Your task to perform on an android device: open sync settings in chrome Image 0: 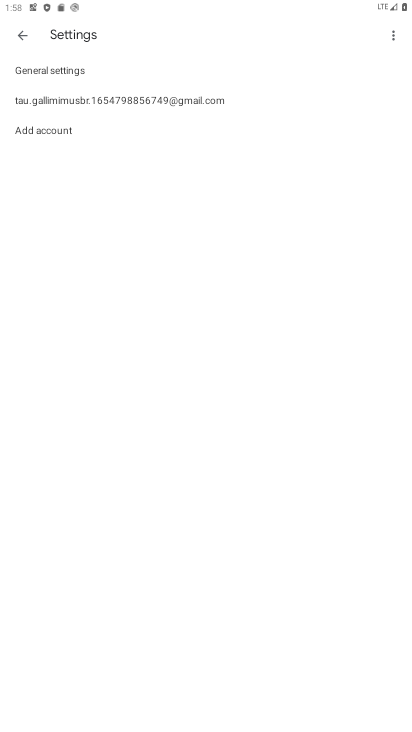
Step 0: press home button
Your task to perform on an android device: open sync settings in chrome Image 1: 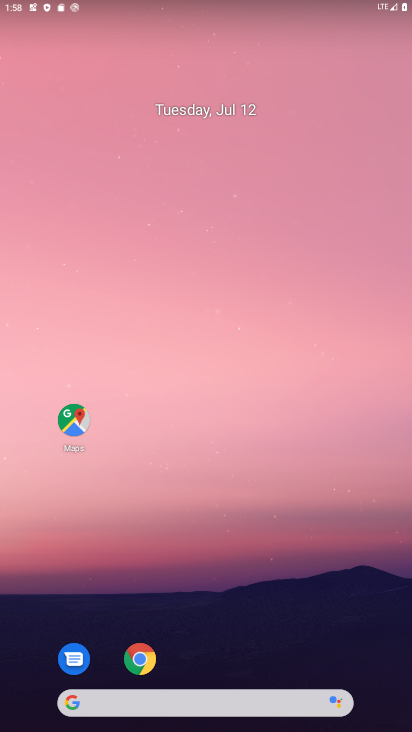
Step 1: drag from (219, 725) to (203, 261)
Your task to perform on an android device: open sync settings in chrome Image 2: 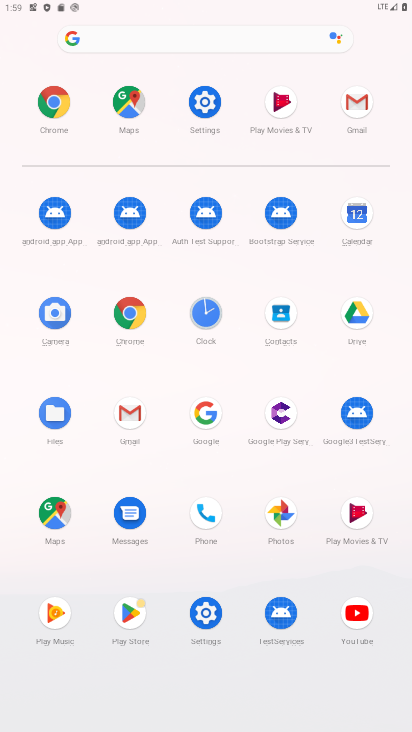
Step 2: click (129, 317)
Your task to perform on an android device: open sync settings in chrome Image 3: 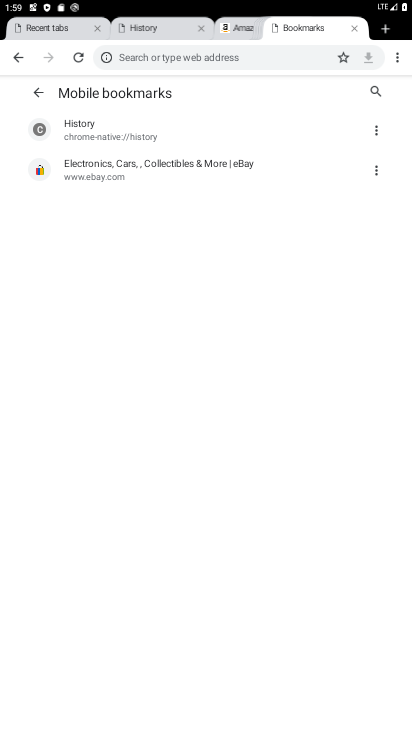
Step 3: click (397, 60)
Your task to perform on an android device: open sync settings in chrome Image 4: 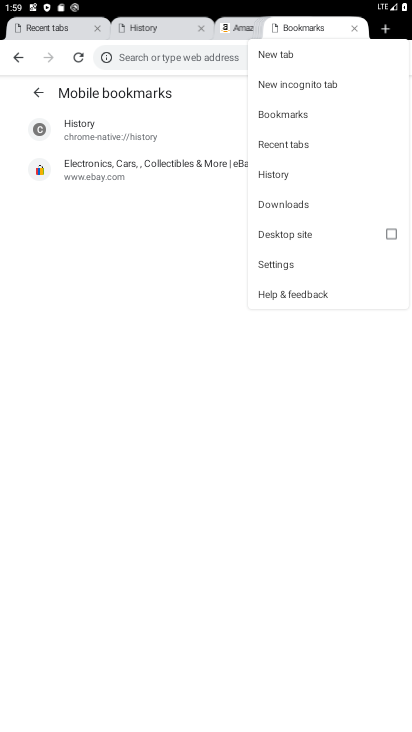
Step 4: click (273, 261)
Your task to perform on an android device: open sync settings in chrome Image 5: 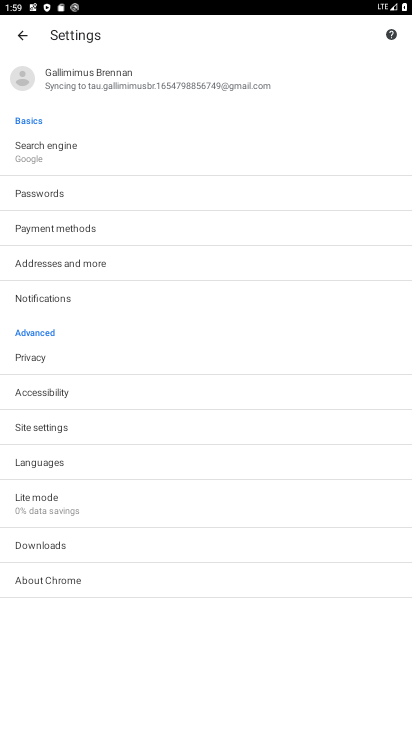
Step 5: click (49, 424)
Your task to perform on an android device: open sync settings in chrome Image 6: 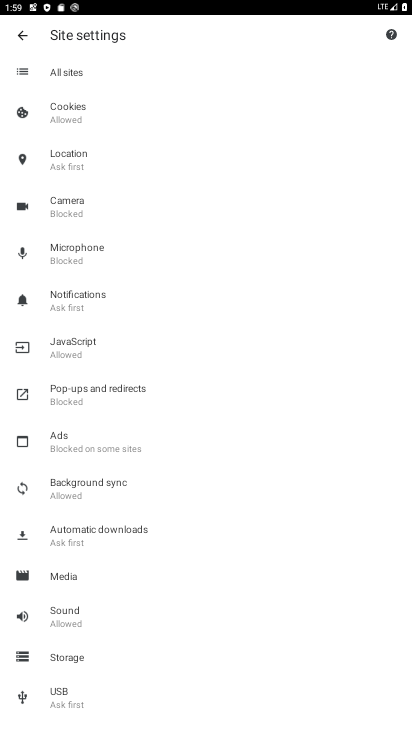
Step 6: click (83, 484)
Your task to perform on an android device: open sync settings in chrome Image 7: 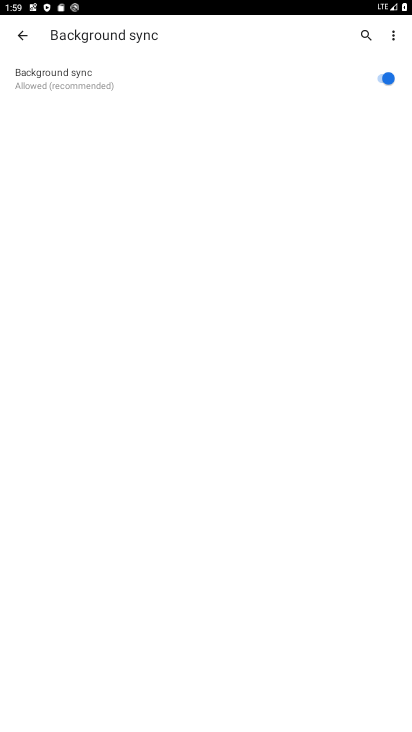
Step 7: task complete